Your task to perform on an android device: Open the Play Movies app and select the watchlist tab. Image 0: 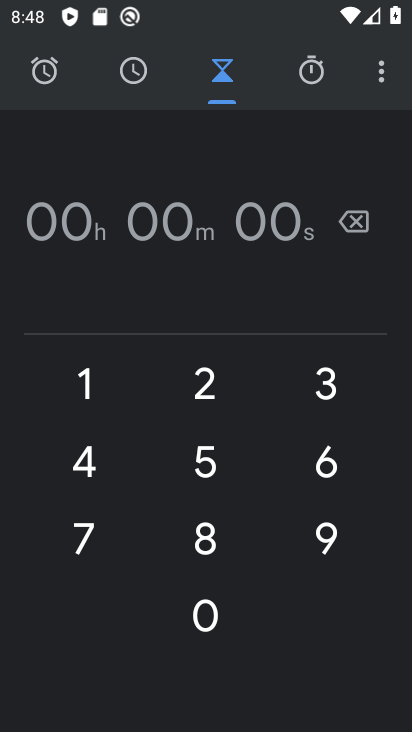
Step 0: press home button
Your task to perform on an android device: Open the Play Movies app and select the watchlist tab. Image 1: 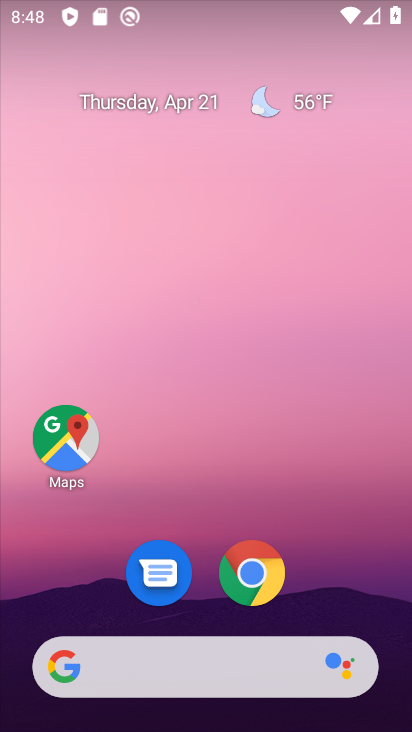
Step 1: drag from (347, 586) to (200, 138)
Your task to perform on an android device: Open the Play Movies app and select the watchlist tab. Image 2: 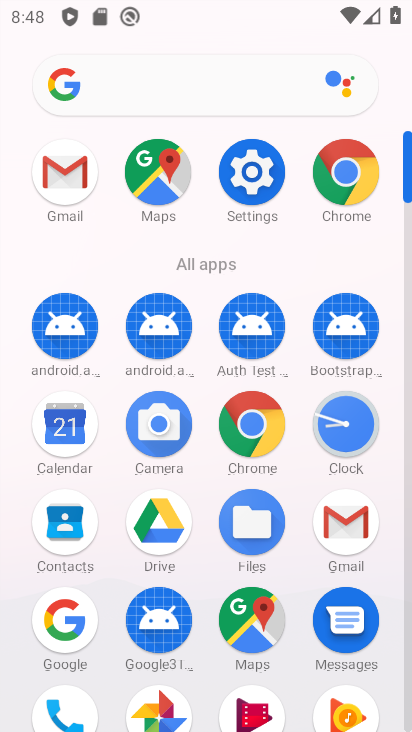
Step 2: drag from (273, 255) to (270, 21)
Your task to perform on an android device: Open the Play Movies app and select the watchlist tab. Image 3: 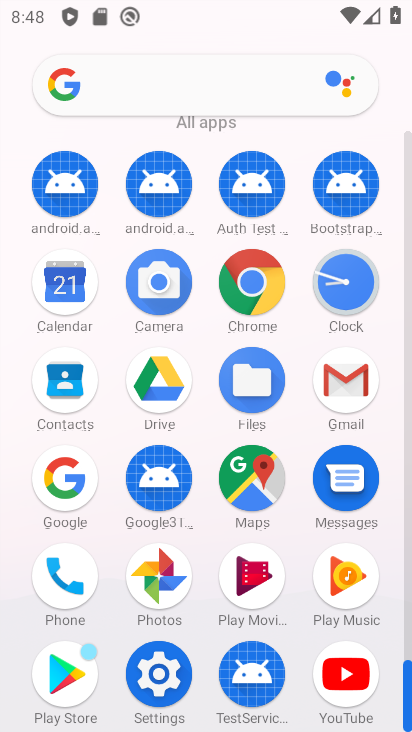
Step 3: click (263, 574)
Your task to perform on an android device: Open the Play Movies app and select the watchlist tab. Image 4: 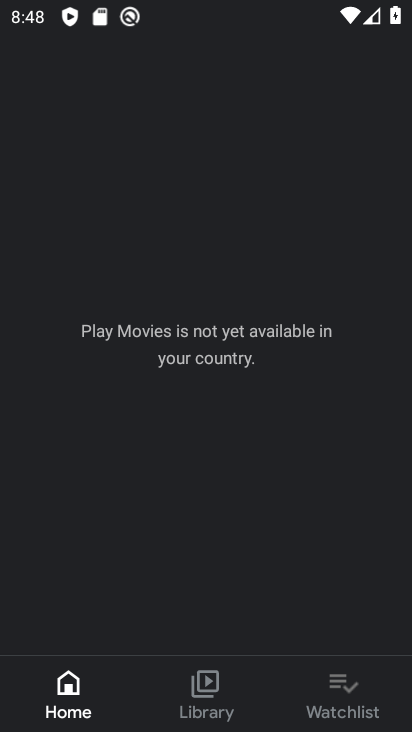
Step 4: click (339, 681)
Your task to perform on an android device: Open the Play Movies app and select the watchlist tab. Image 5: 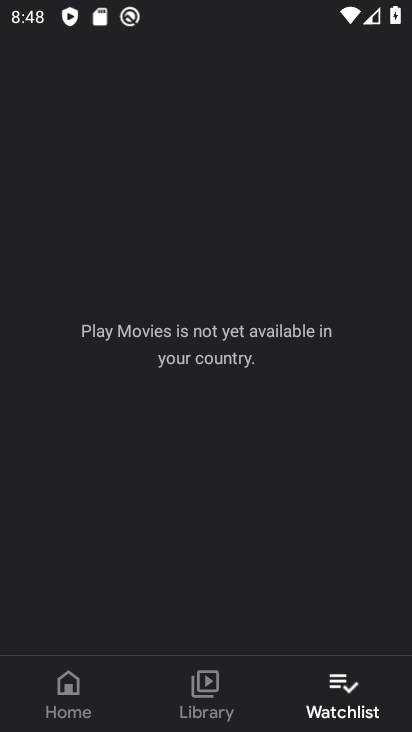
Step 5: task complete